Your task to perform on an android device: Is it going to rain today? Image 0: 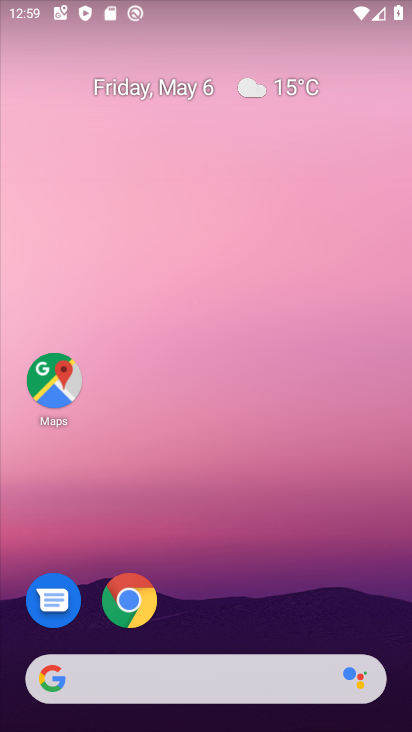
Step 0: click (241, 676)
Your task to perform on an android device: Is it going to rain today? Image 1: 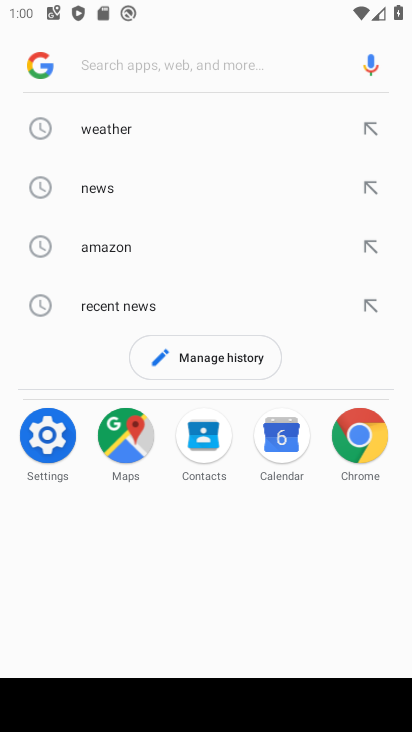
Step 1: type "is it going to rain today?"
Your task to perform on an android device: Is it going to rain today? Image 2: 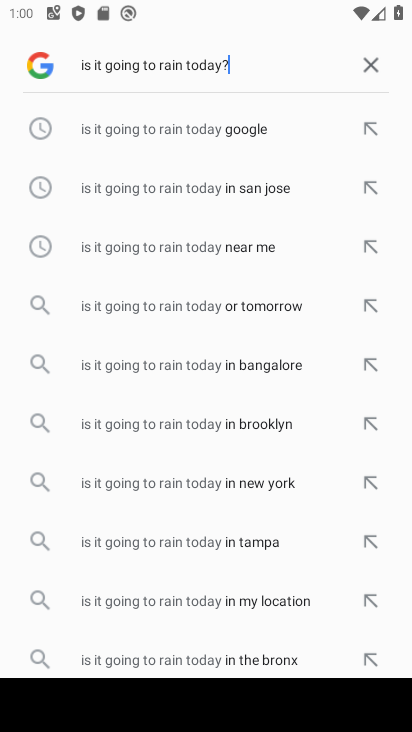
Step 2: click (185, 135)
Your task to perform on an android device: Is it going to rain today? Image 3: 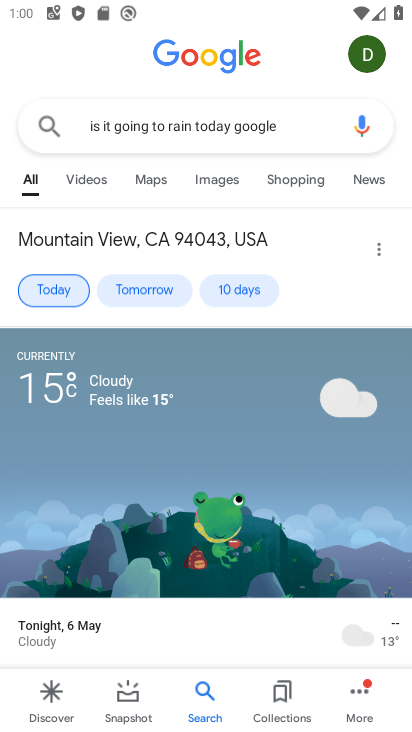
Step 3: task complete